Your task to perform on an android device: Go to network settings Image 0: 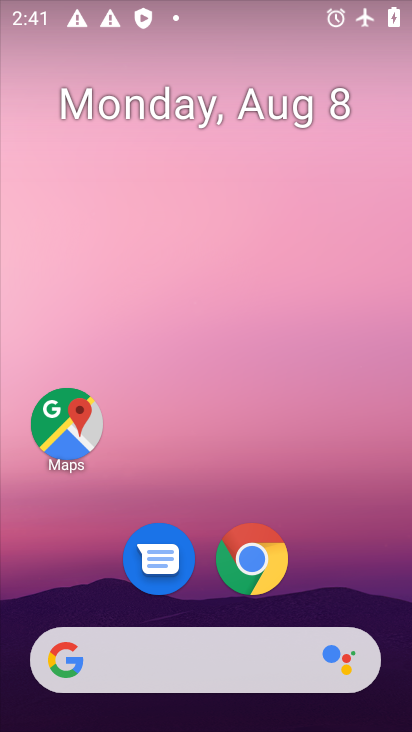
Step 0: drag from (228, 676) to (225, 309)
Your task to perform on an android device: Go to network settings Image 1: 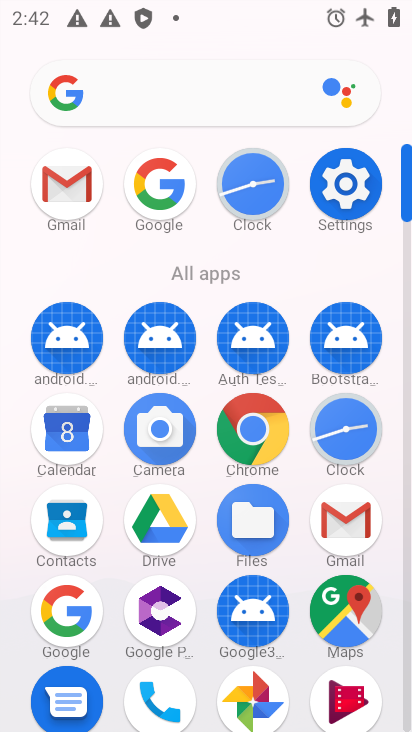
Step 1: click (345, 184)
Your task to perform on an android device: Go to network settings Image 2: 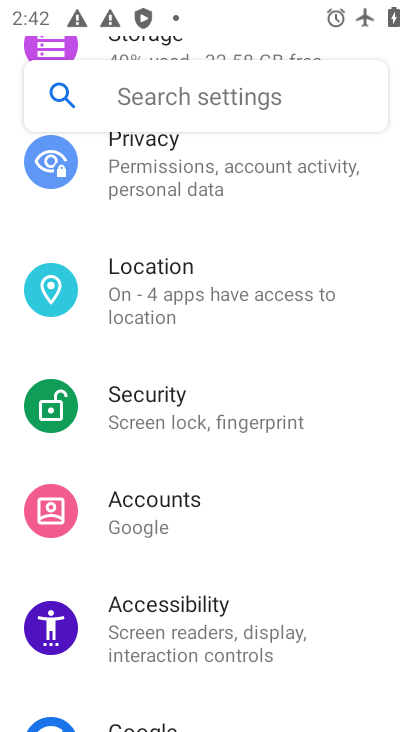
Step 2: drag from (241, 252) to (216, 396)
Your task to perform on an android device: Go to network settings Image 3: 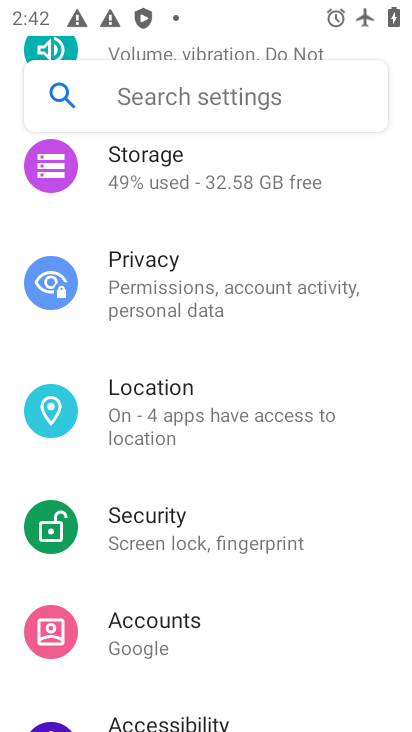
Step 3: drag from (211, 253) to (228, 374)
Your task to perform on an android device: Go to network settings Image 4: 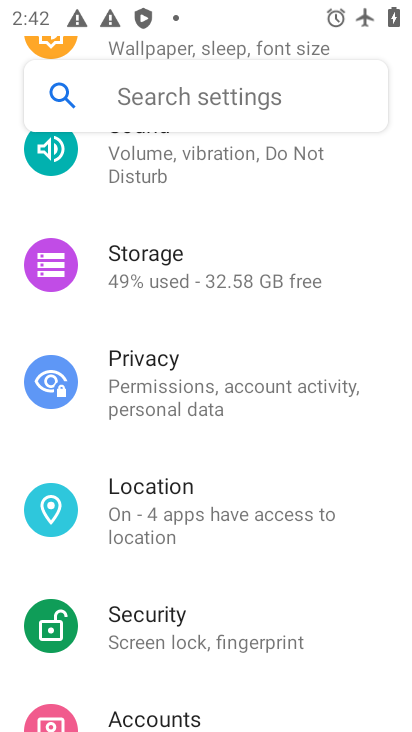
Step 4: drag from (219, 234) to (253, 367)
Your task to perform on an android device: Go to network settings Image 5: 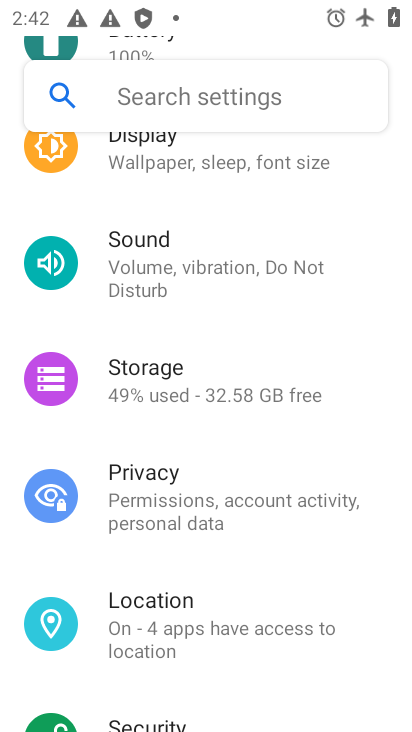
Step 5: drag from (222, 215) to (221, 383)
Your task to perform on an android device: Go to network settings Image 6: 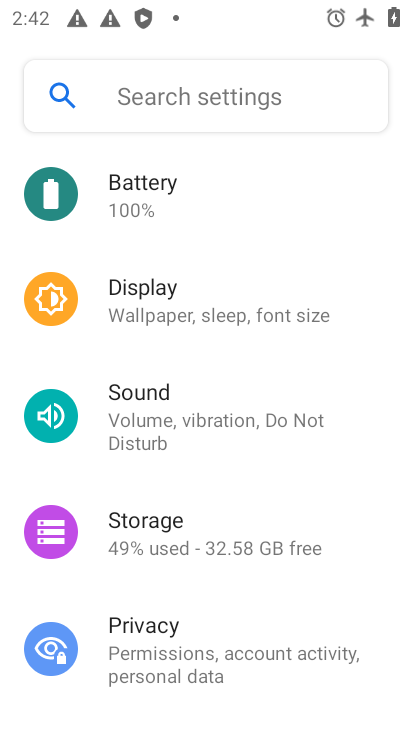
Step 6: drag from (198, 239) to (215, 365)
Your task to perform on an android device: Go to network settings Image 7: 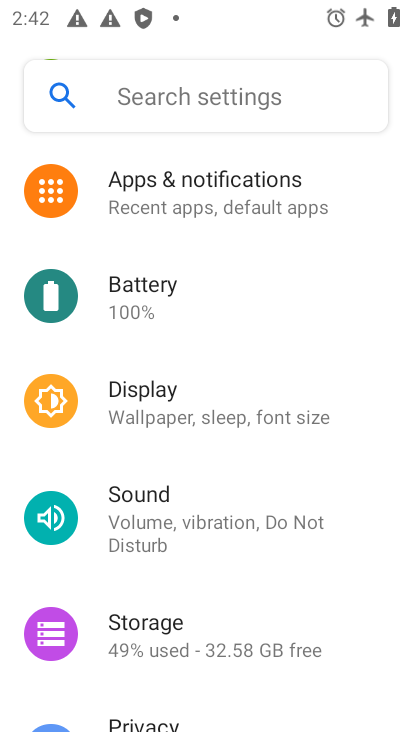
Step 7: drag from (202, 245) to (217, 370)
Your task to perform on an android device: Go to network settings Image 8: 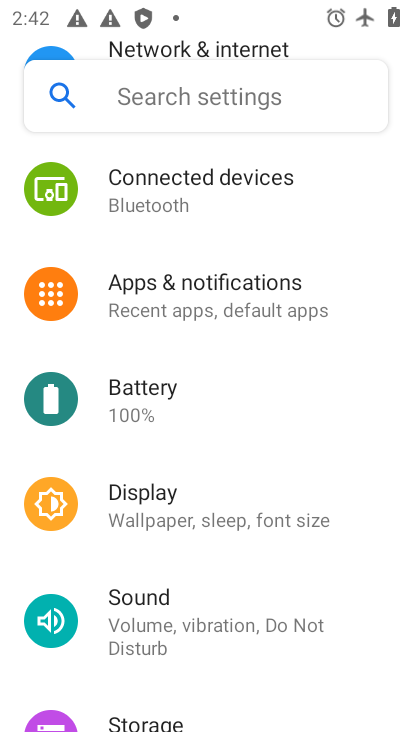
Step 8: drag from (241, 203) to (226, 366)
Your task to perform on an android device: Go to network settings Image 9: 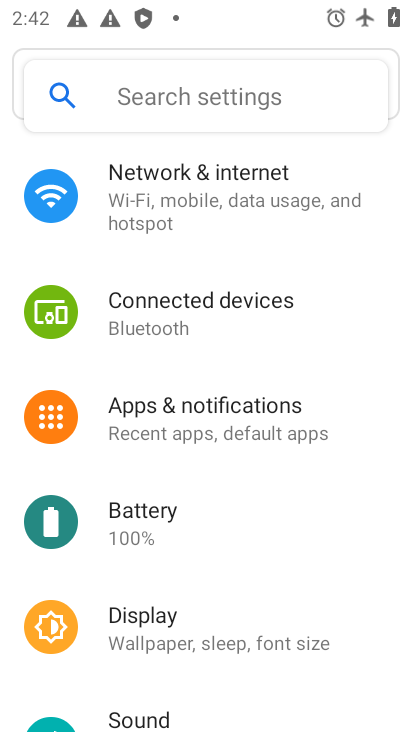
Step 9: click (210, 201)
Your task to perform on an android device: Go to network settings Image 10: 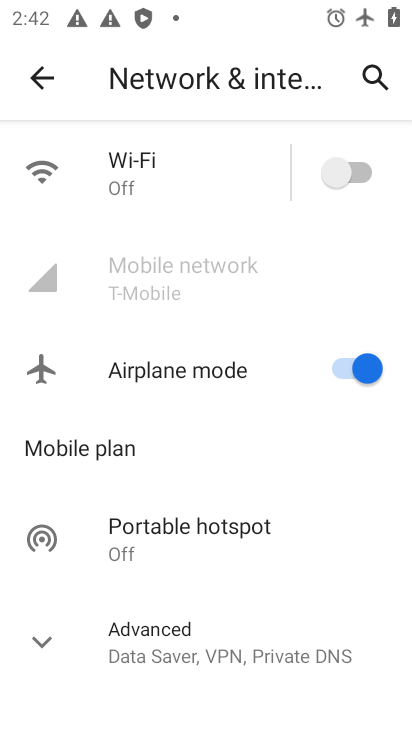
Step 10: task complete